Your task to perform on an android device: open chrome privacy settings Image 0: 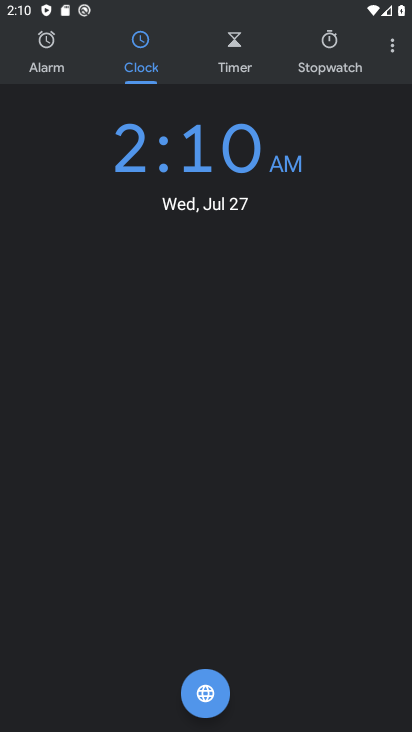
Step 0: press home button
Your task to perform on an android device: open chrome privacy settings Image 1: 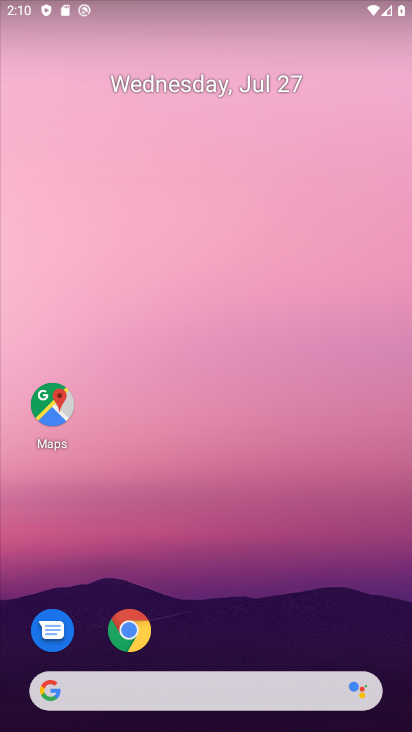
Step 1: click (141, 642)
Your task to perform on an android device: open chrome privacy settings Image 2: 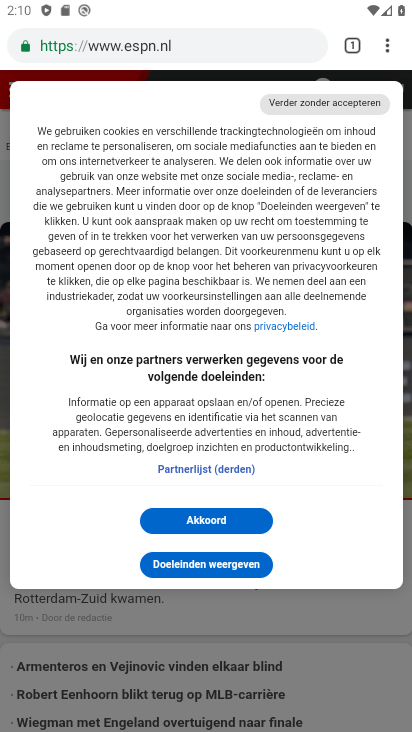
Step 2: click (383, 40)
Your task to perform on an android device: open chrome privacy settings Image 3: 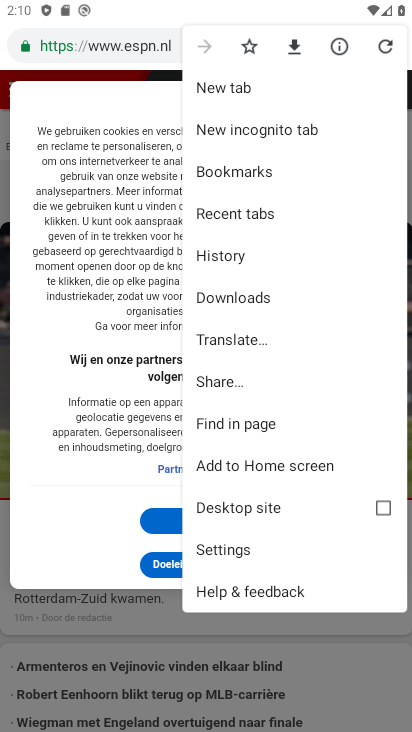
Step 3: click (223, 545)
Your task to perform on an android device: open chrome privacy settings Image 4: 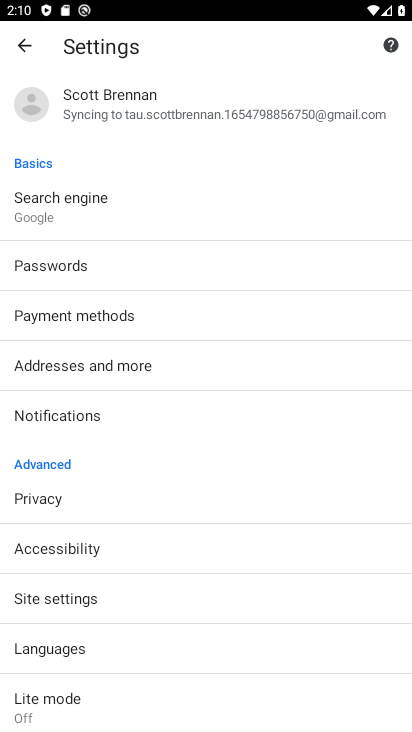
Step 4: click (76, 500)
Your task to perform on an android device: open chrome privacy settings Image 5: 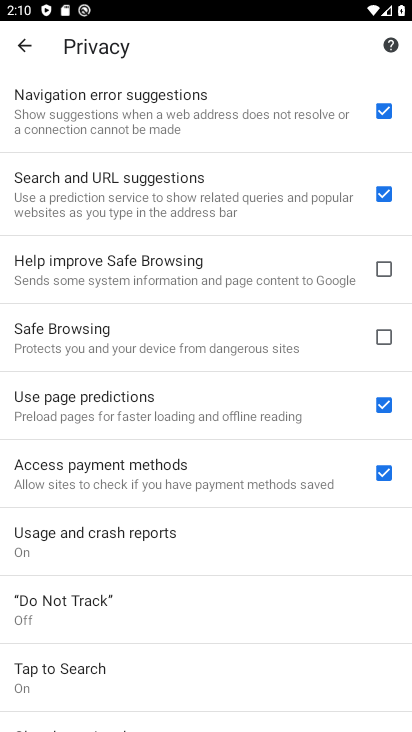
Step 5: task complete